Your task to perform on an android device: Show me the alarms in the clock app Image 0: 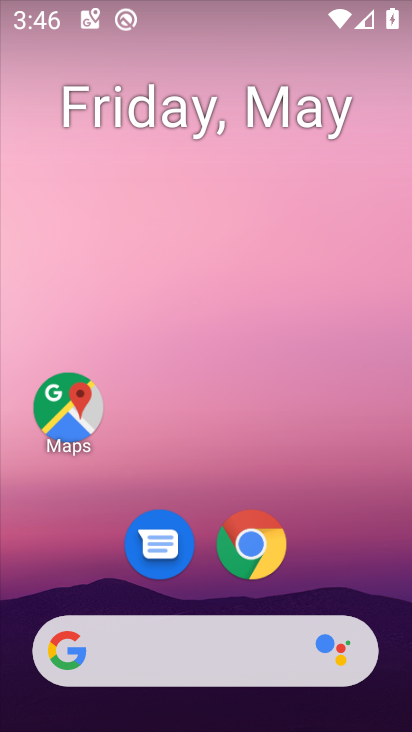
Step 0: drag from (228, 681) to (136, 233)
Your task to perform on an android device: Show me the alarms in the clock app Image 1: 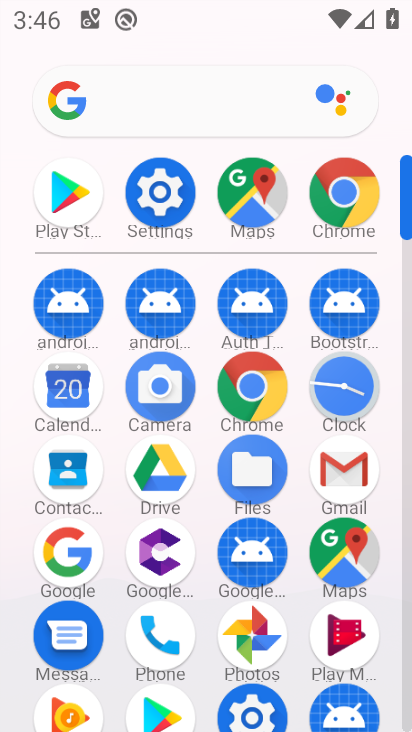
Step 1: click (339, 387)
Your task to perform on an android device: Show me the alarms in the clock app Image 2: 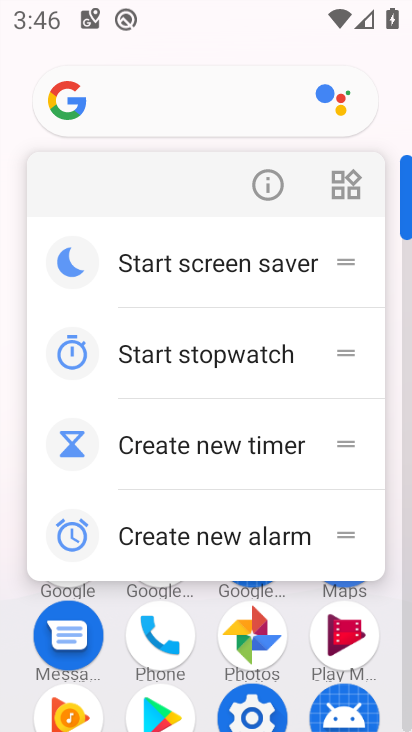
Step 2: click (396, 443)
Your task to perform on an android device: Show me the alarms in the clock app Image 3: 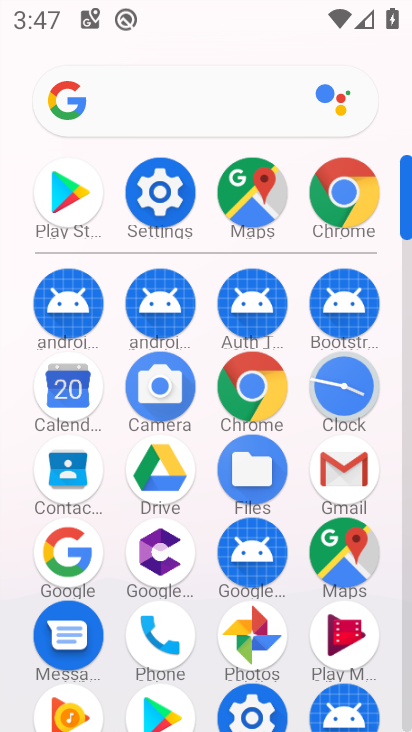
Step 3: click (341, 379)
Your task to perform on an android device: Show me the alarms in the clock app Image 4: 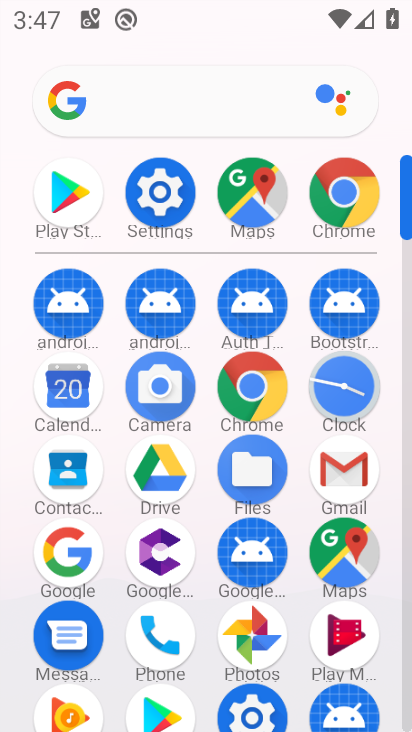
Step 4: click (336, 383)
Your task to perform on an android device: Show me the alarms in the clock app Image 5: 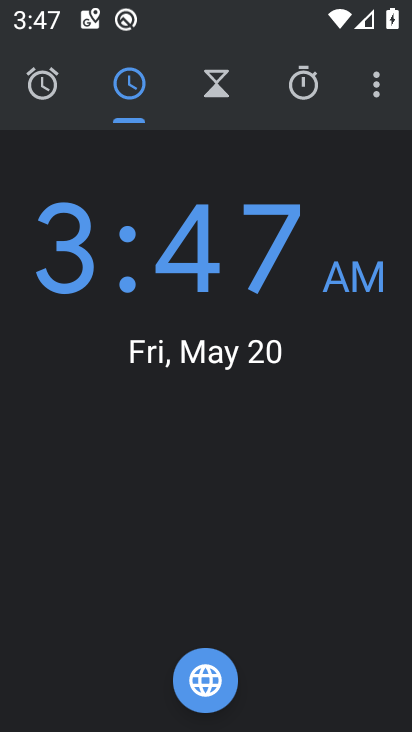
Step 5: click (336, 383)
Your task to perform on an android device: Show me the alarms in the clock app Image 6: 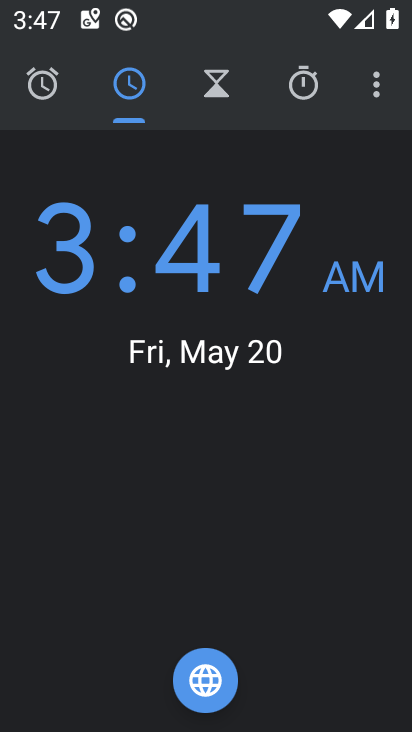
Step 6: click (371, 93)
Your task to perform on an android device: Show me the alarms in the clock app Image 7: 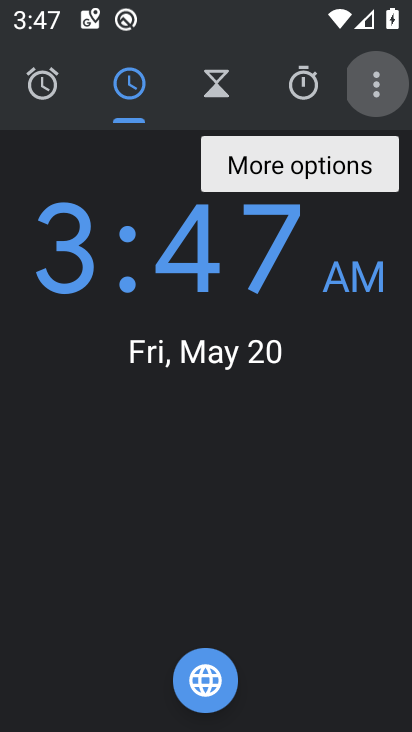
Step 7: click (373, 93)
Your task to perform on an android device: Show me the alarms in the clock app Image 8: 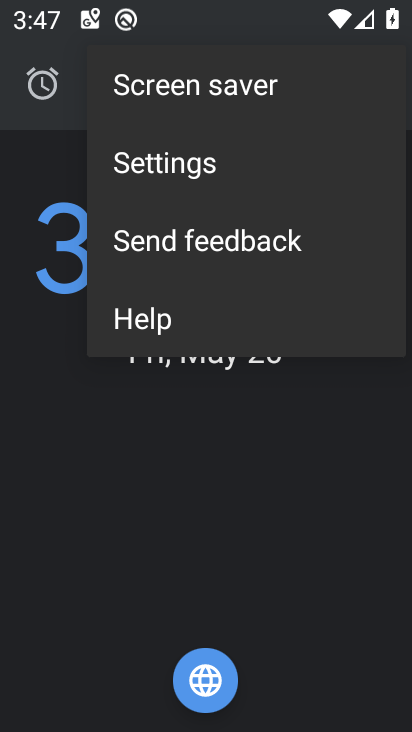
Step 8: click (170, 175)
Your task to perform on an android device: Show me the alarms in the clock app Image 9: 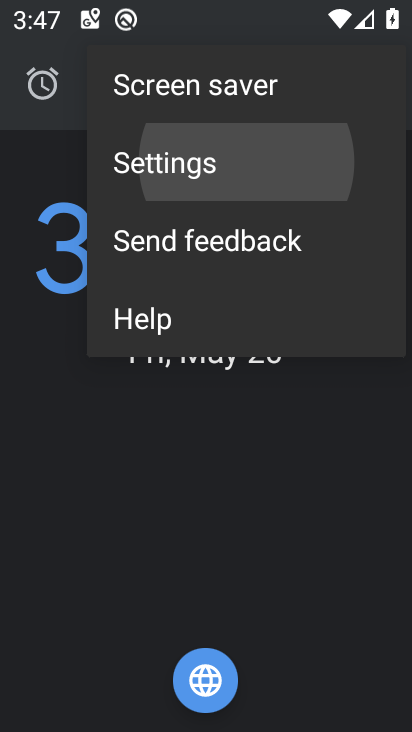
Step 9: click (170, 172)
Your task to perform on an android device: Show me the alarms in the clock app Image 10: 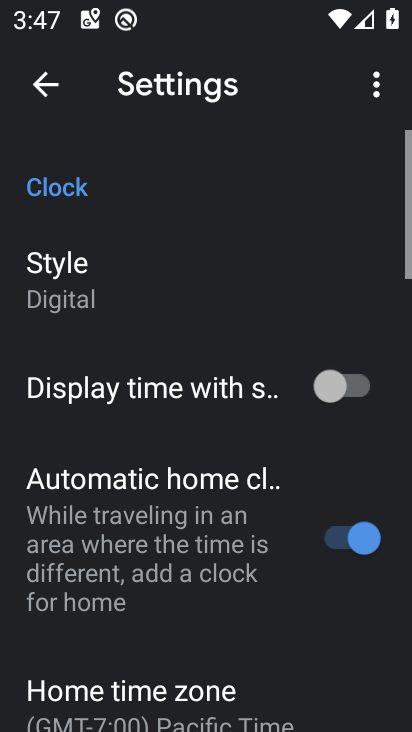
Step 10: click (171, 169)
Your task to perform on an android device: Show me the alarms in the clock app Image 11: 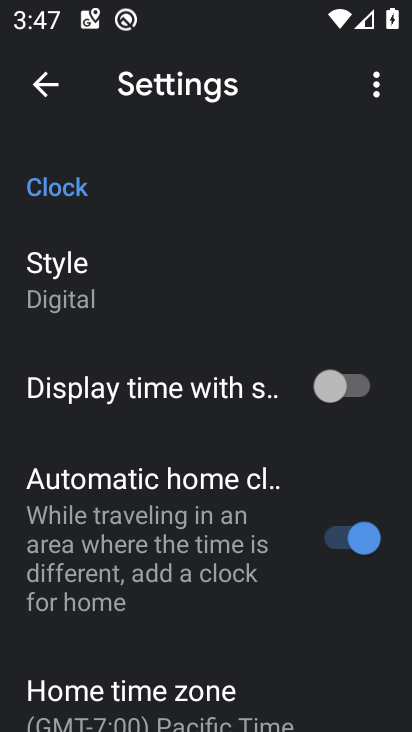
Step 11: click (34, 81)
Your task to perform on an android device: Show me the alarms in the clock app Image 12: 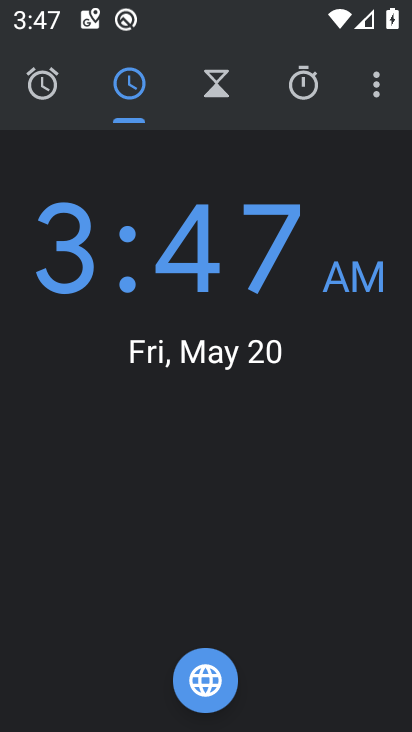
Step 12: click (35, 83)
Your task to perform on an android device: Show me the alarms in the clock app Image 13: 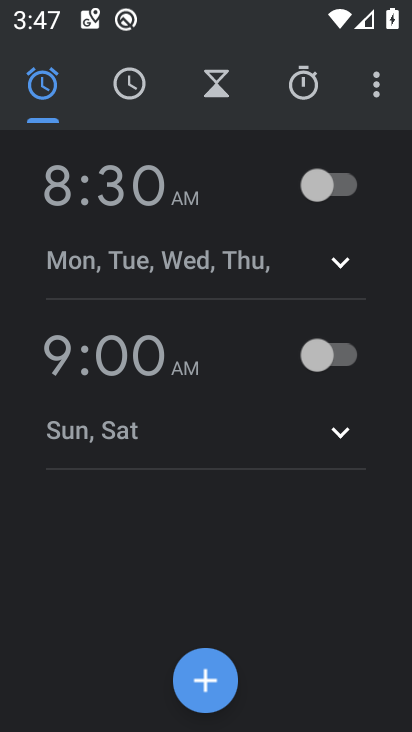
Step 13: click (330, 161)
Your task to perform on an android device: Show me the alarms in the clock app Image 14: 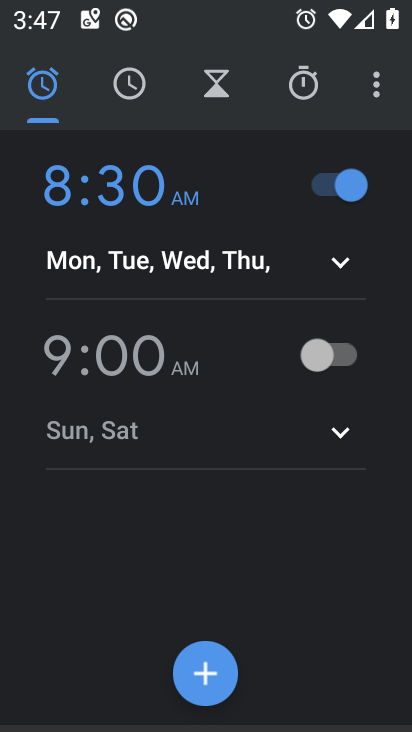
Step 14: task complete